Your task to perform on an android device: add a contact Image 0: 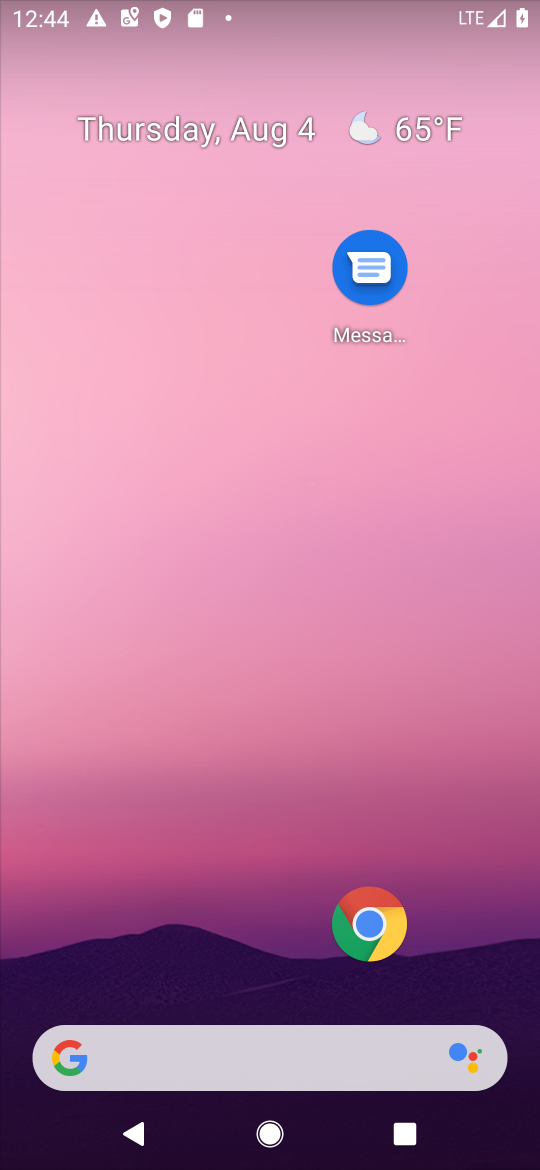
Step 0: click (198, 267)
Your task to perform on an android device: add a contact Image 1: 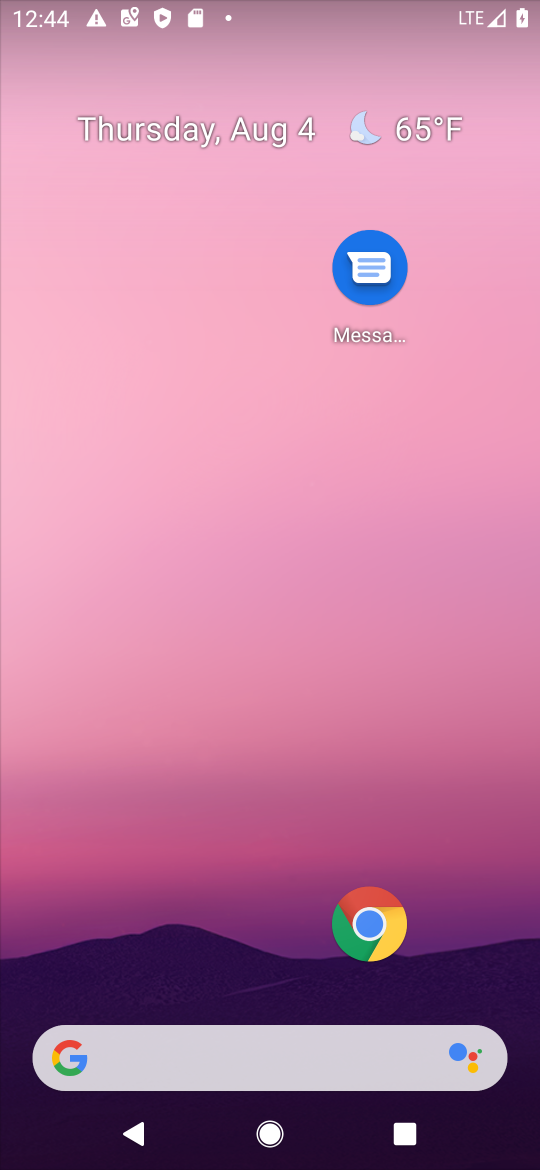
Step 1: drag from (50, 1065) to (304, 1)
Your task to perform on an android device: add a contact Image 2: 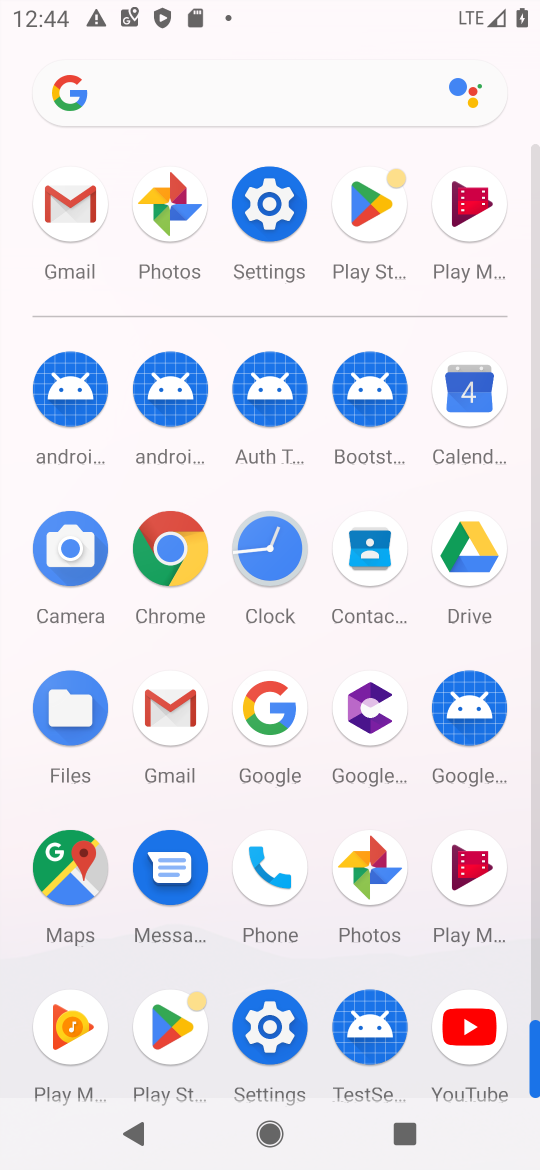
Step 2: click (269, 890)
Your task to perform on an android device: add a contact Image 3: 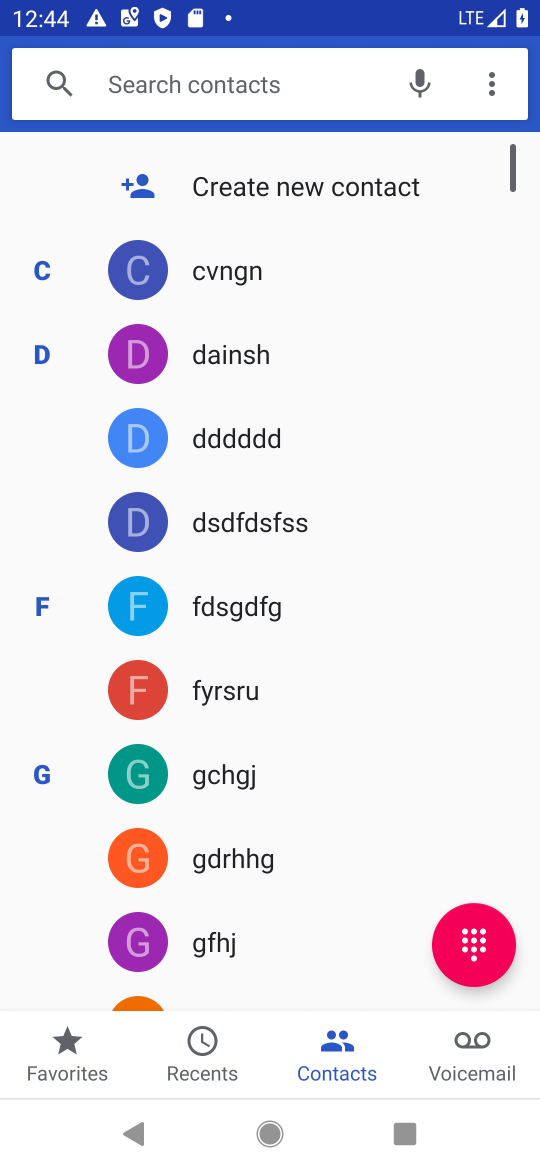
Step 3: click (241, 189)
Your task to perform on an android device: add a contact Image 4: 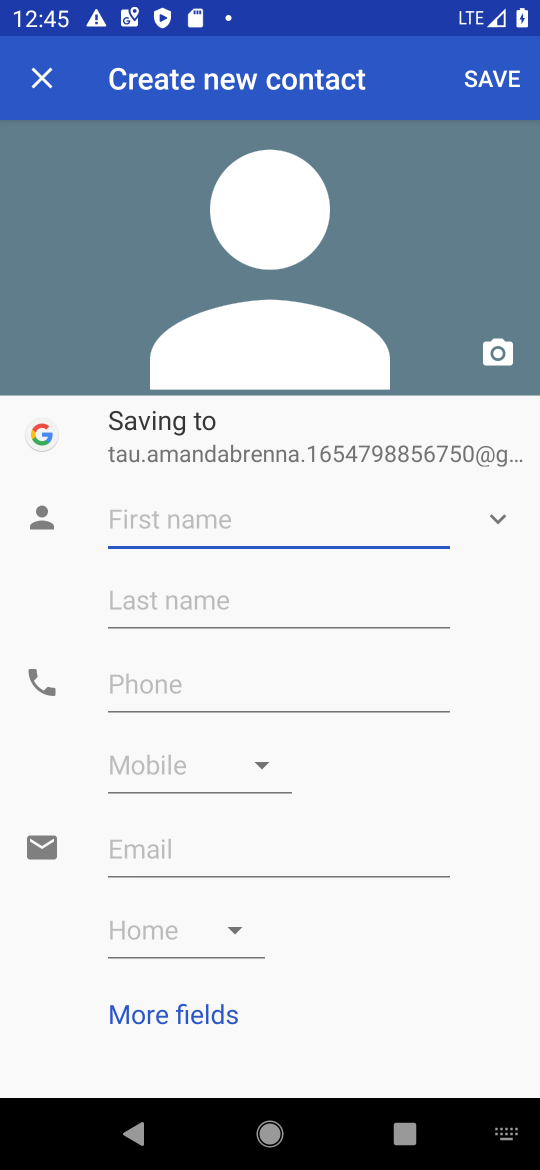
Step 4: click (147, 508)
Your task to perform on an android device: add a contact Image 5: 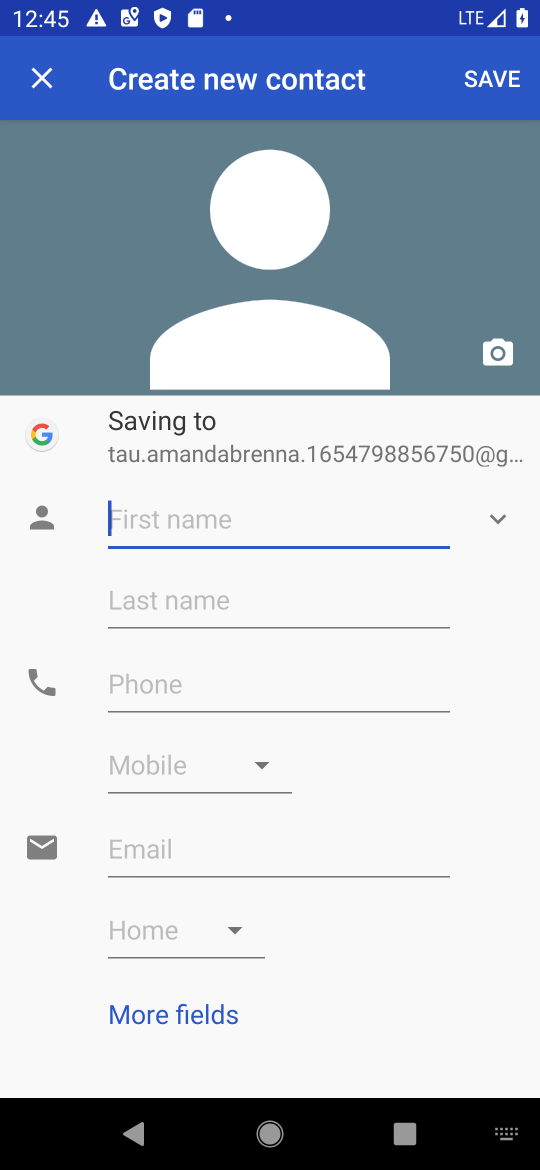
Step 5: type "dffgjrt"
Your task to perform on an android device: add a contact Image 6: 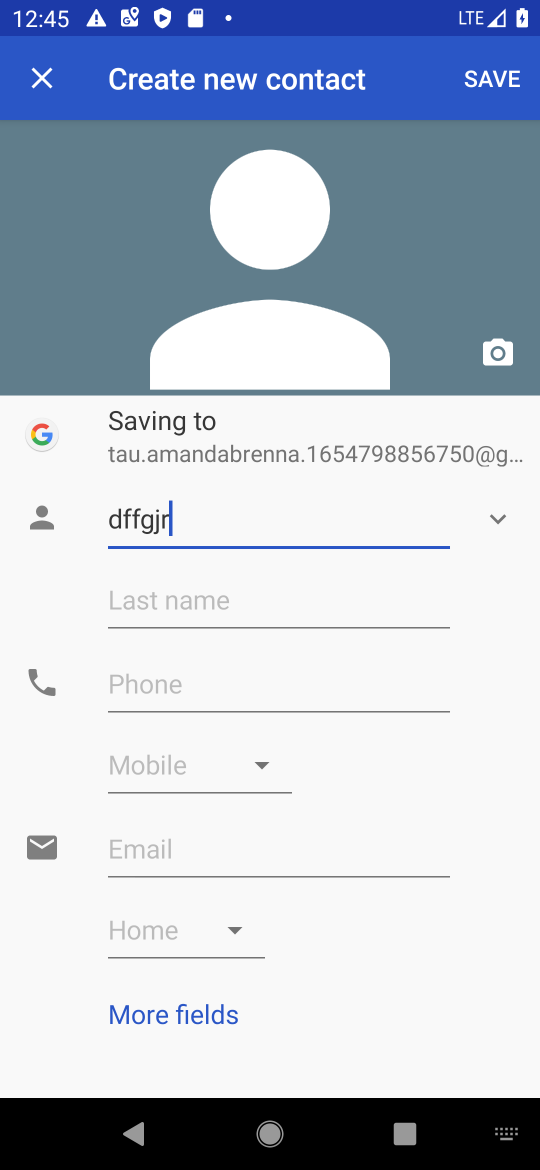
Step 6: type ""
Your task to perform on an android device: add a contact Image 7: 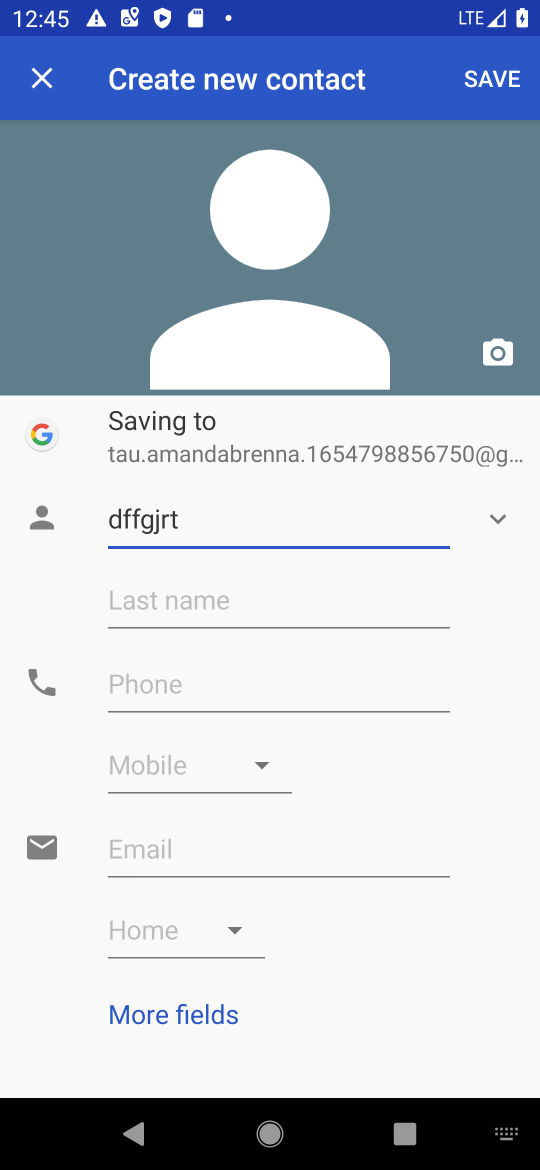
Step 7: click (504, 87)
Your task to perform on an android device: add a contact Image 8: 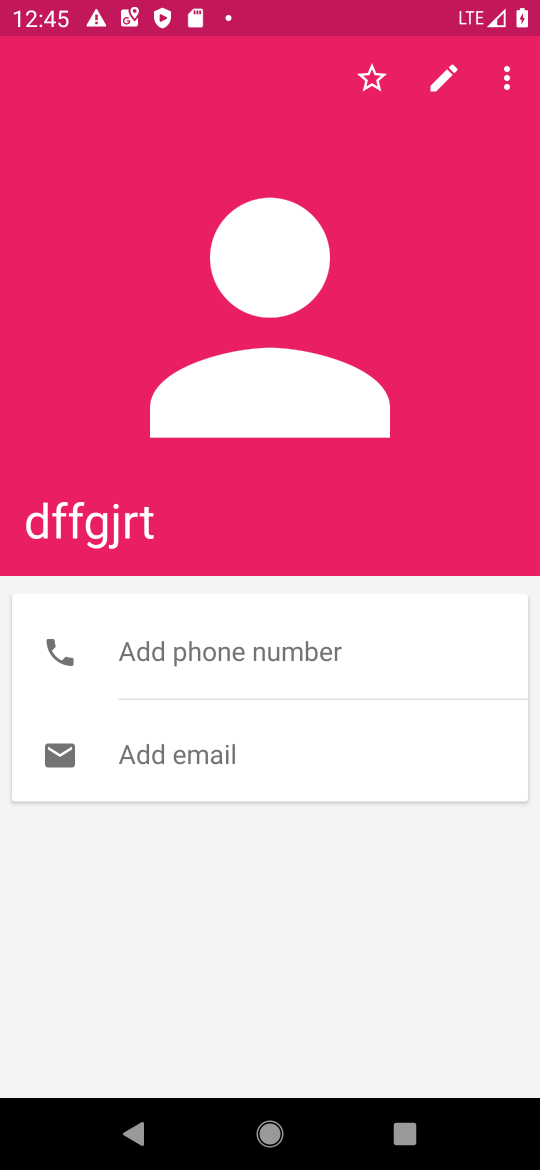
Step 8: task complete